Your task to perform on an android device: open the mobile data screen to see how much data has been used Image 0: 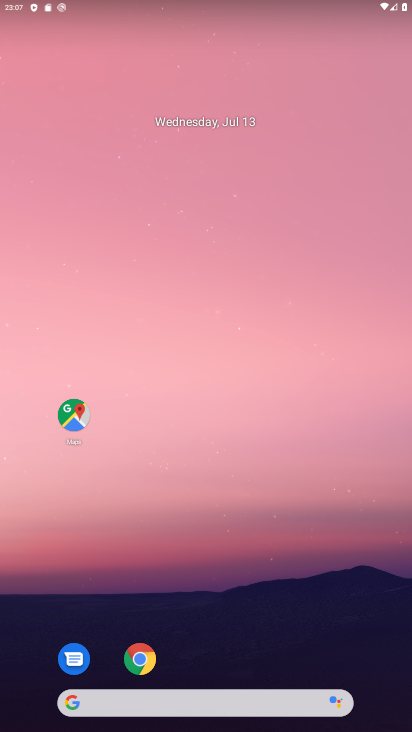
Step 0: drag from (383, 672) to (328, 185)
Your task to perform on an android device: open the mobile data screen to see how much data has been used Image 1: 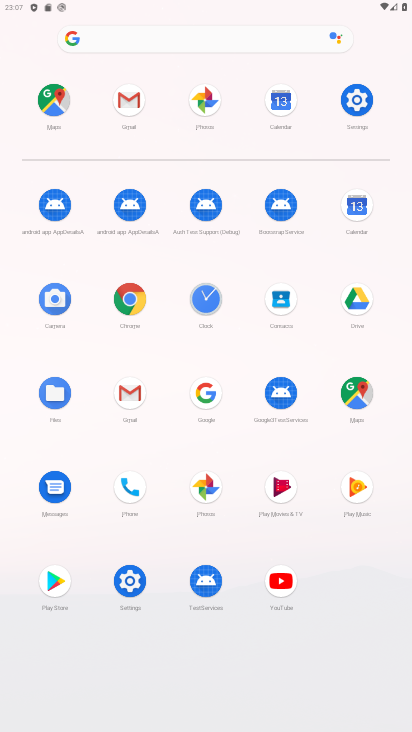
Step 1: click (128, 580)
Your task to perform on an android device: open the mobile data screen to see how much data has been used Image 2: 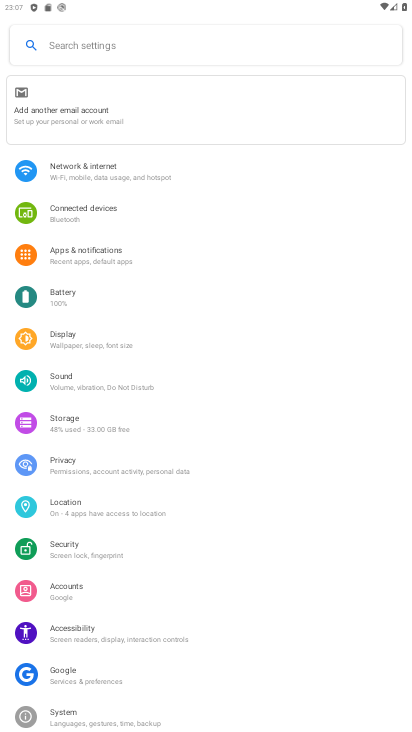
Step 2: click (91, 176)
Your task to perform on an android device: open the mobile data screen to see how much data has been used Image 3: 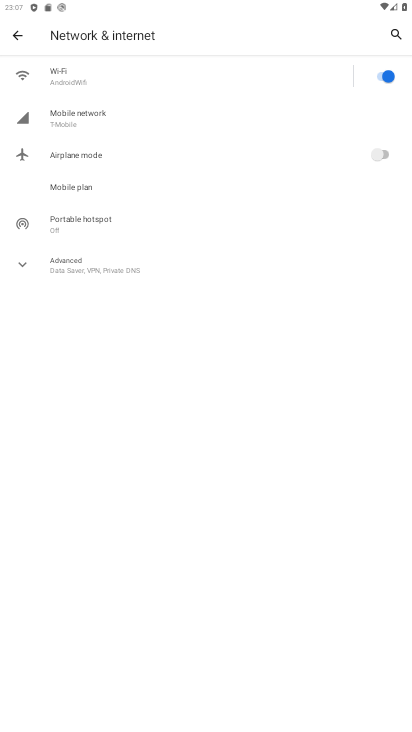
Step 3: click (92, 115)
Your task to perform on an android device: open the mobile data screen to see how much data has been used Image 4: 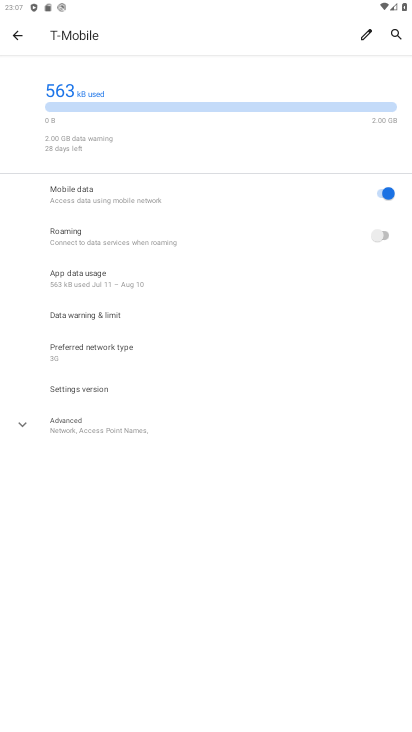
Step 4: task complete